Your task to perform on an android device: set the stopwatch Image 0: 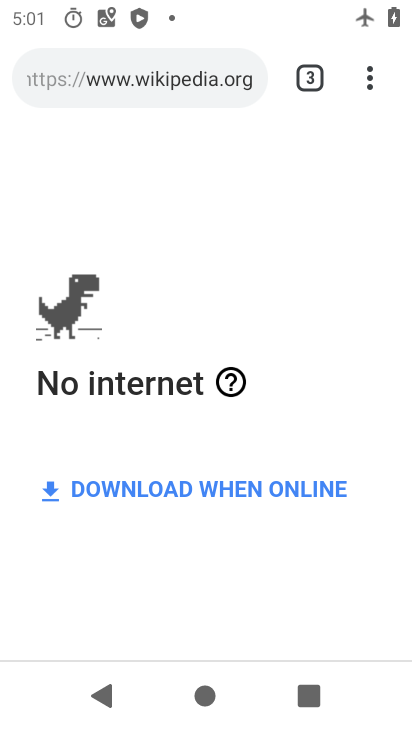
Step 0: press home button
Your task to perform on an android device: set the stopwatch Image 1: 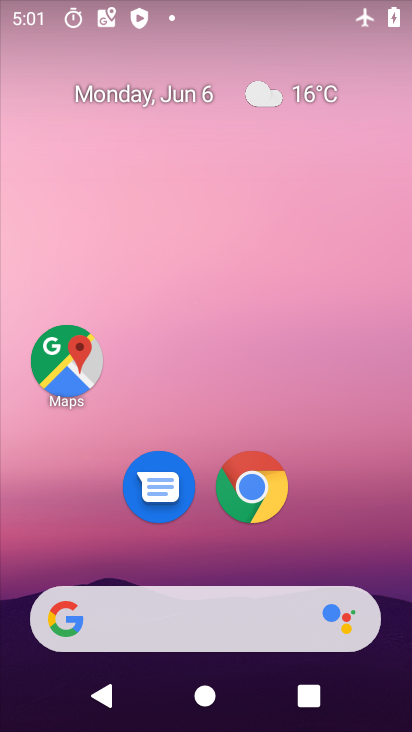
Step 1: drag from (336, 363) to (323, 38)
Your task to perform on an android device: set the stopwatch Image 2: 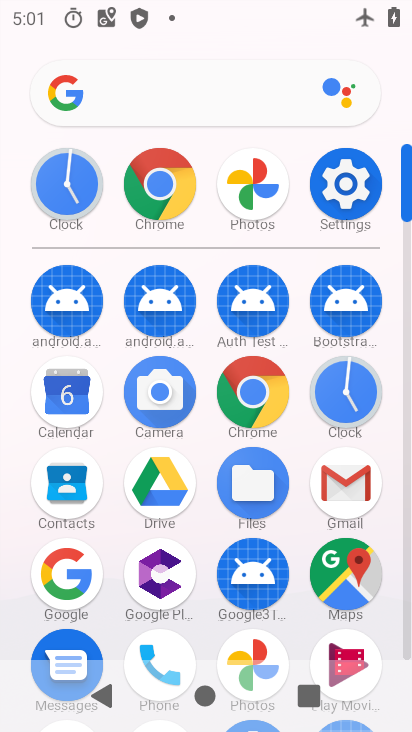
Step 2: click (332, 400)
Your task to perform on an android device: set the stopwatch Image 3: 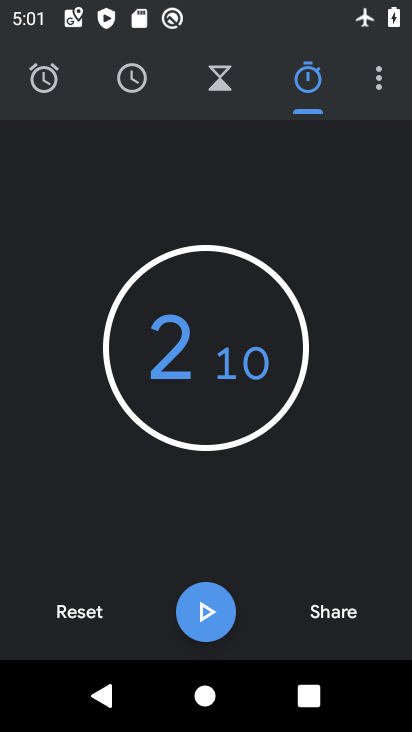
Step 3: task complete